Your task to perform on an android device: read, delete, or share a saved page in the chrome app Image 0: 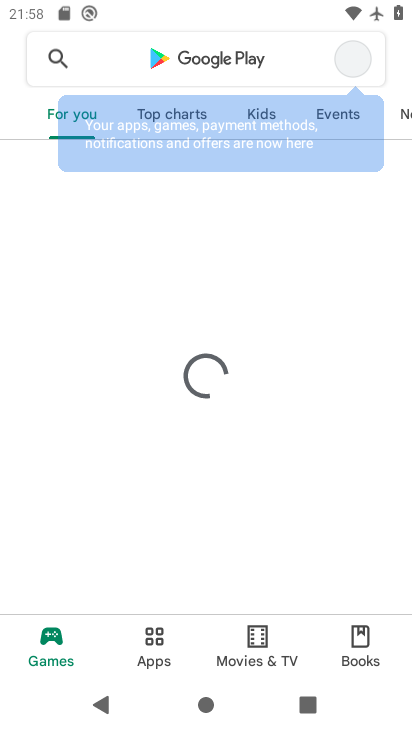
Step 0: click (101, 522)
Your task to perform on an android device: read, delete, or share a saved page in the chrome app Image 1: 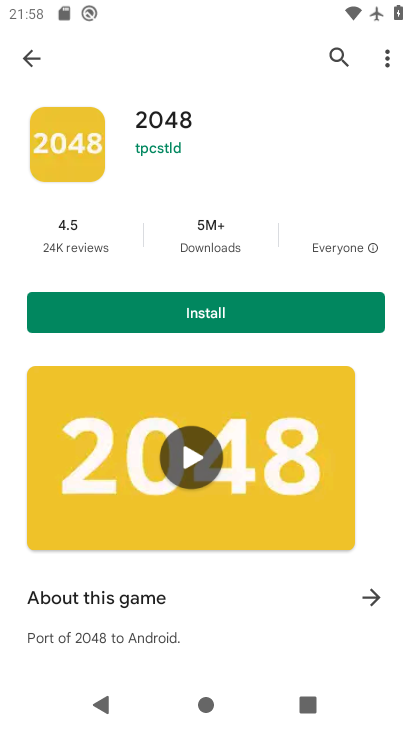
Step 1: press home button
Your task to perform on an android device: read, delete, or share a saved page in the chrome app Image 2: 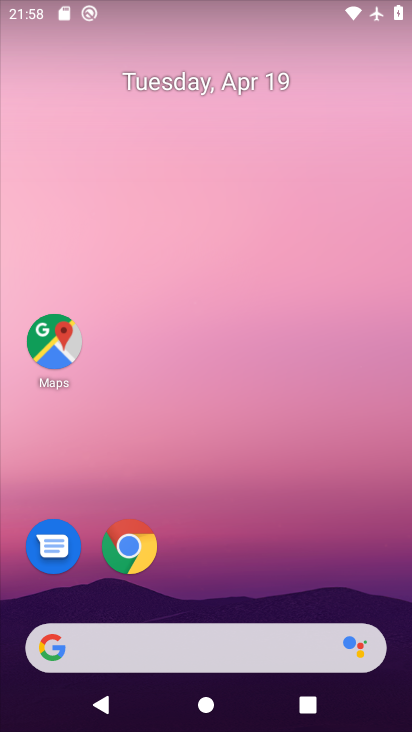
Step 2: click (123, 543)
Your task to perform on an android device: read, delete, or share a saved page in the chrome app Image 3: 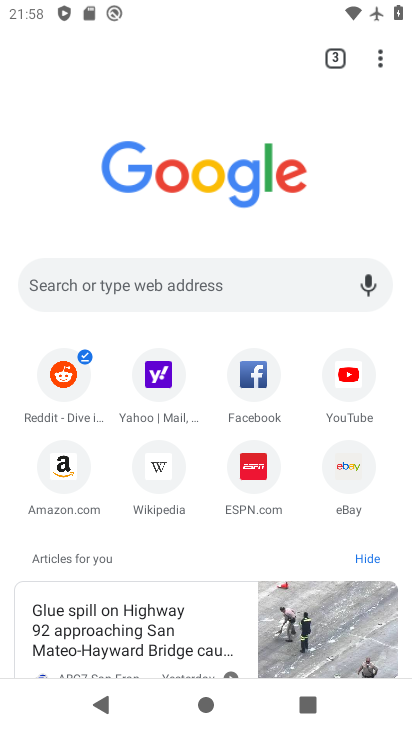
Step 3: click (373, 64)
Your task to perform on an android device: read, delete, or share a saved page in the chrome app Image 4: 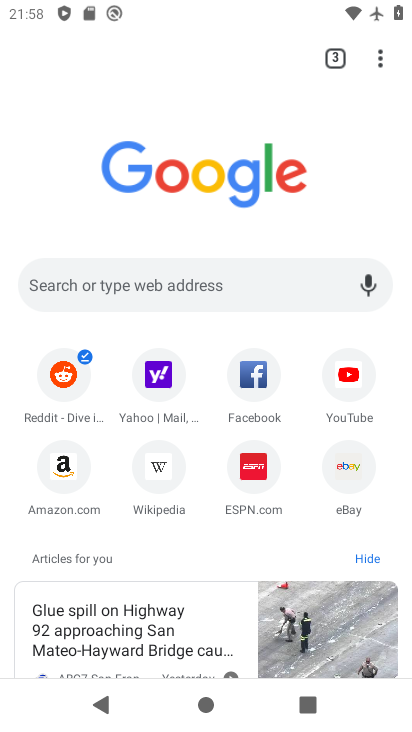
Step 4: click (373, 64)
Your task to perform on an android device: read, delete, or share a saved page in the chrome app Image 5: 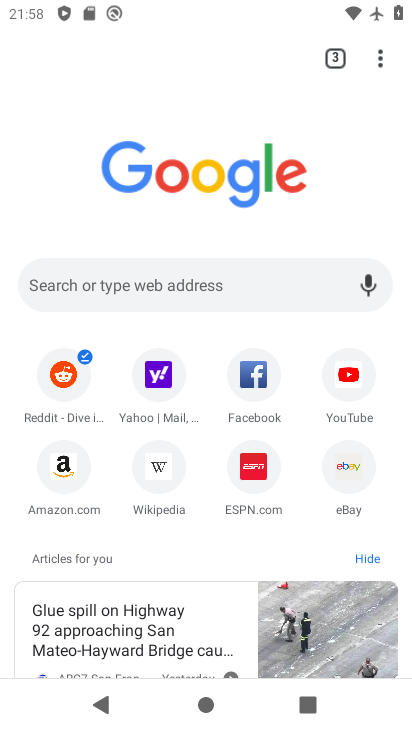
Step 5: click (373, 69)
Your task to perform on an android device: read, delete, or share a saved page in the chrome app Image 6: 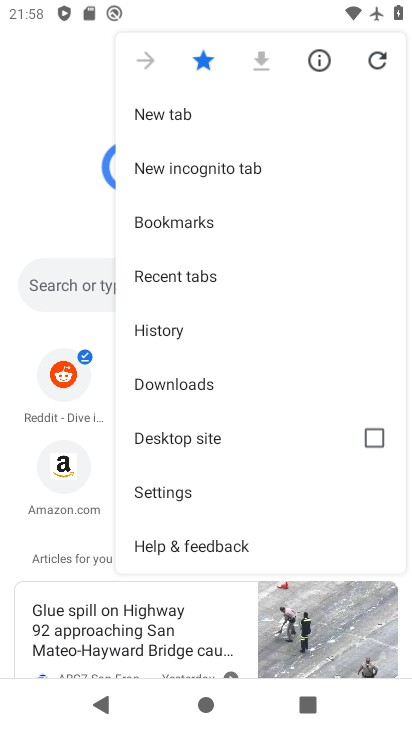
Step 6: task complete